Your task to perform on an android device: Open accessibility settings Image 0: 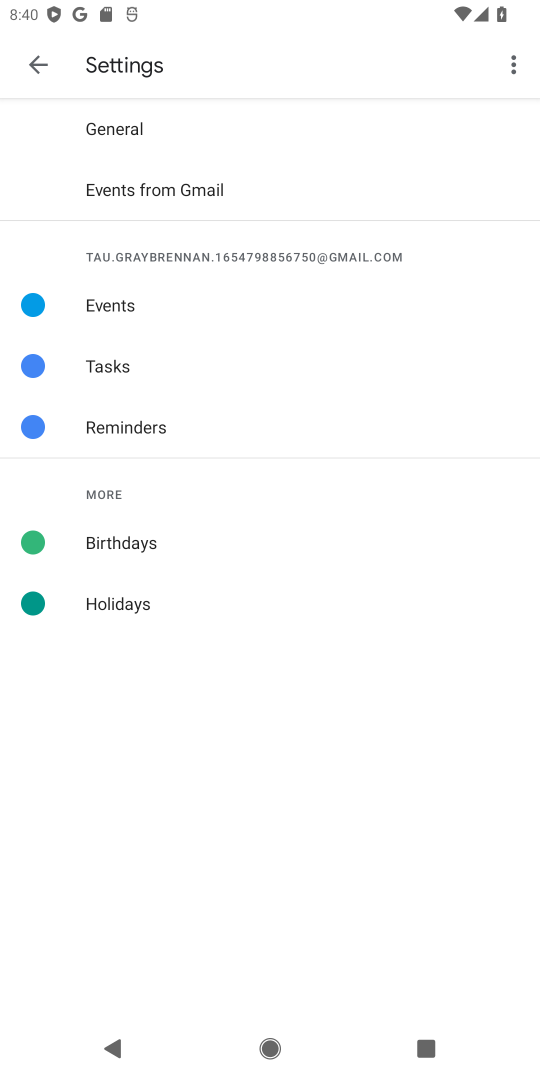
Step 0: press home button
Your task to perform on an android device: Open accessibility settings Image 1: 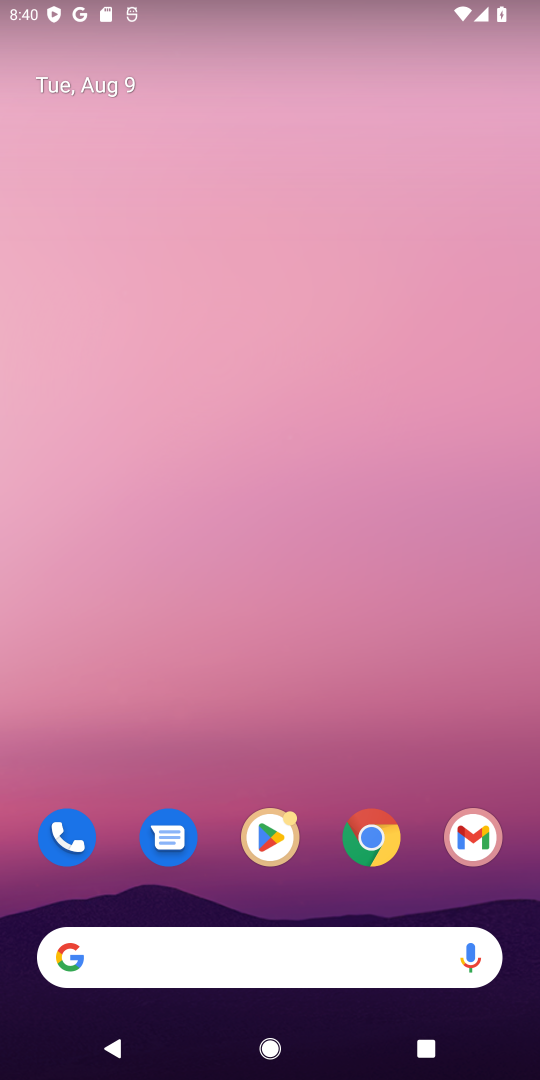
Step 1: drag from (311, 910) to (261, 134)
Your task to perform on an android device: Open accessibility settings Image 2: 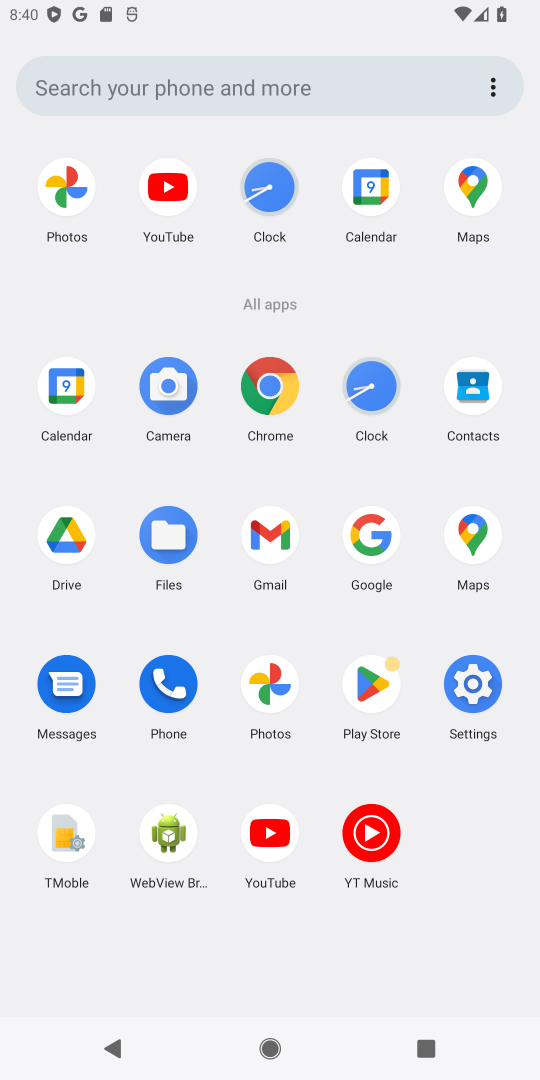
Step 2: click (472, 681)
Your task to perform on an android device: Open accessibility settings Image 3: 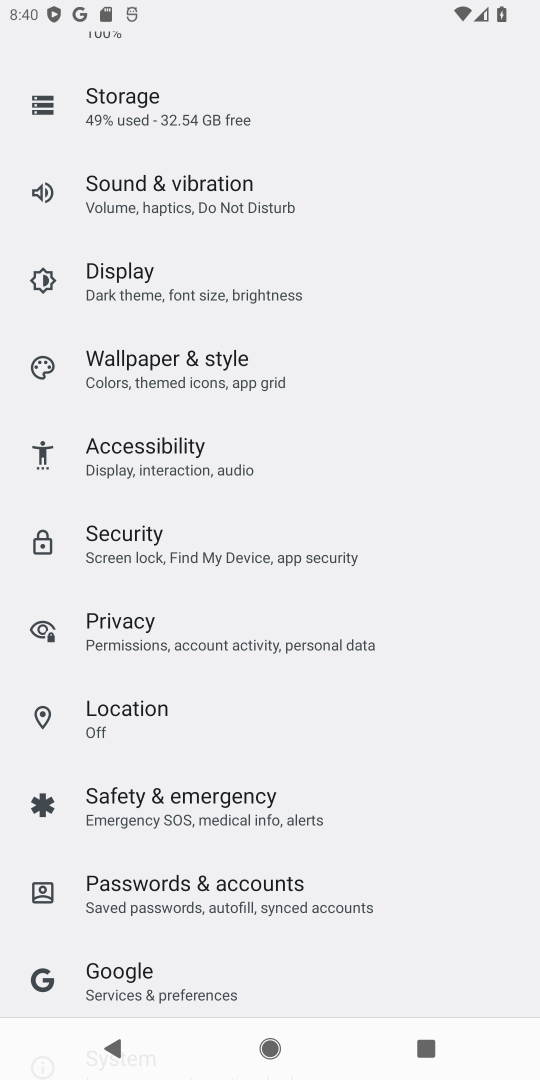
Step 3: click (128, 449)
Your task to perform on an android device: Open accessibility settings Image 4: 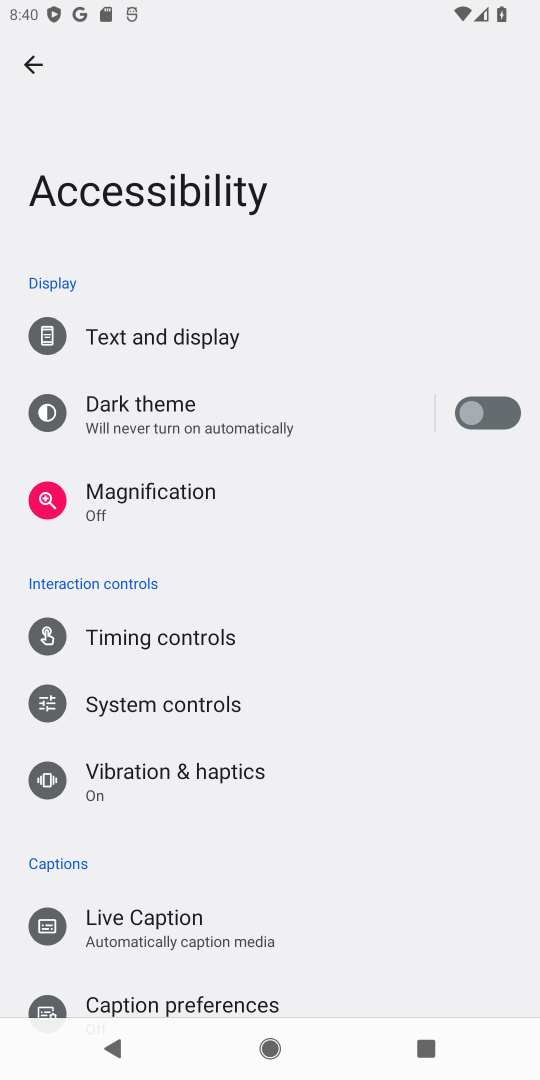
Step 4: task complete